Your task to perform on an android device: turn off airplane mode Image 0: 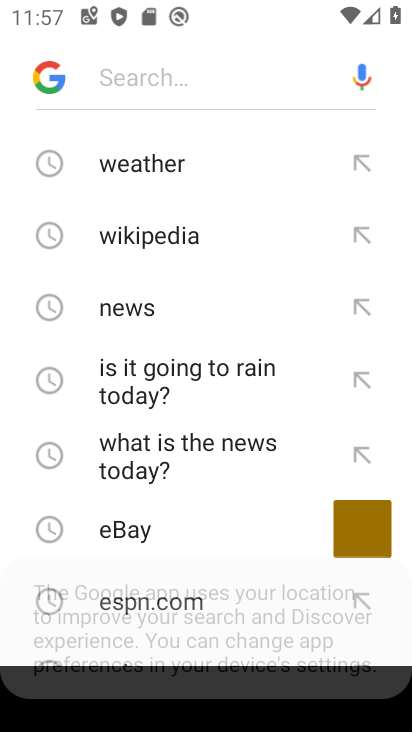
Step 0: press home button
Your task to perform on an android device: turn off airplane mode Image 1: 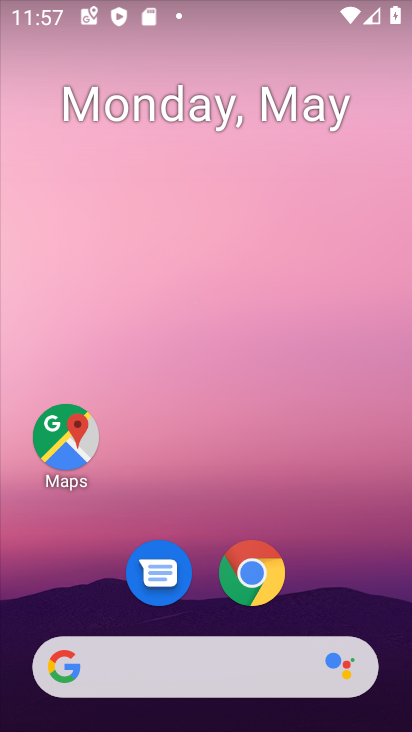
Step 1: drag from (312, 617) to (316, 5)
Your task to perform on an android device: turn off airplane mode Image 2: 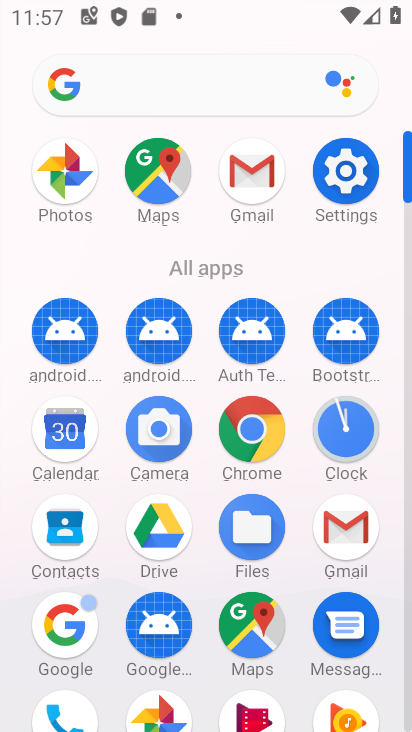
Step 2: click (341, 167)
Your task to perform on an android device: turn off airplane mode Image 3: 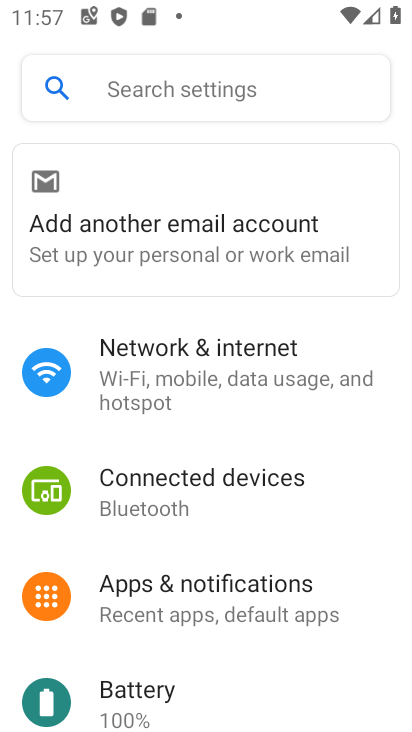
Step 3: click (182, 379)
Your task to perform on an android device: turn off airplane mode Image 4: 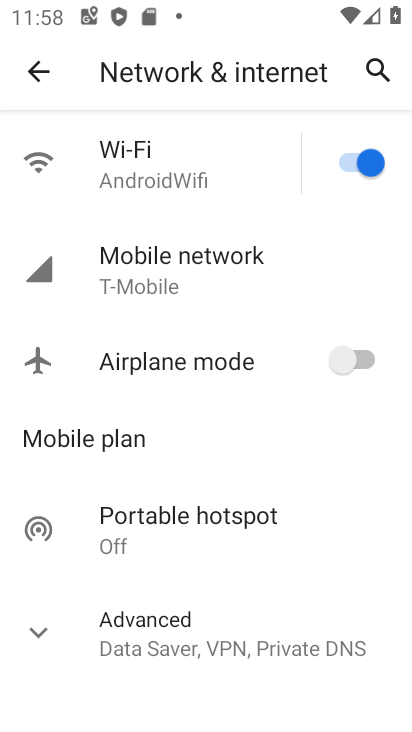
Step 4: task complete